Your task to perform on an android device: install app "Move to iOS" Image 0: 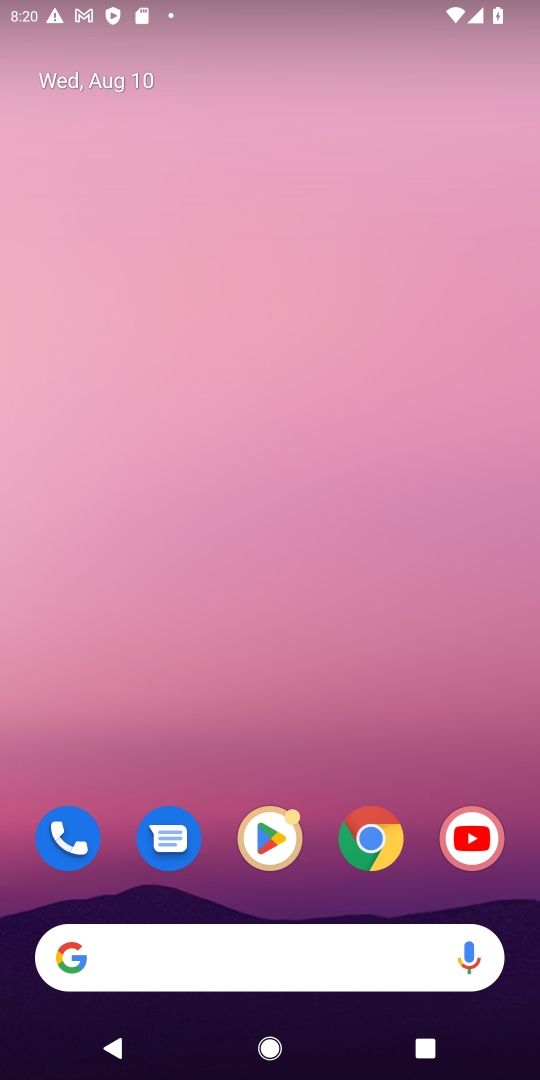
Step 0: click (280, 851)
Your task to perform on an android device: install app "Move to iOS" Image 1: 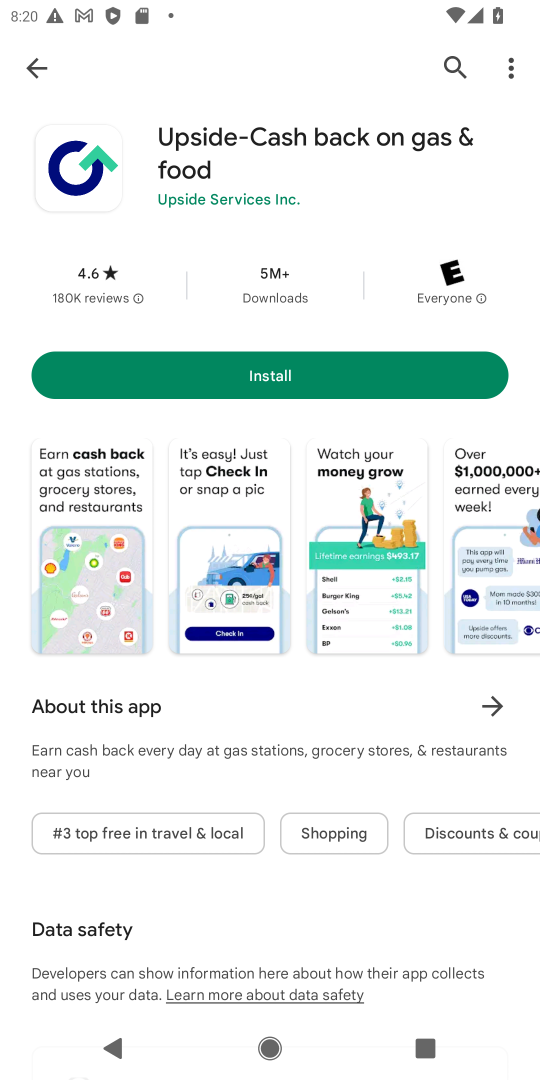
Step 1: click (458, 67)
Your task to perform on an android device: install app "Move to iOS" Image 2: 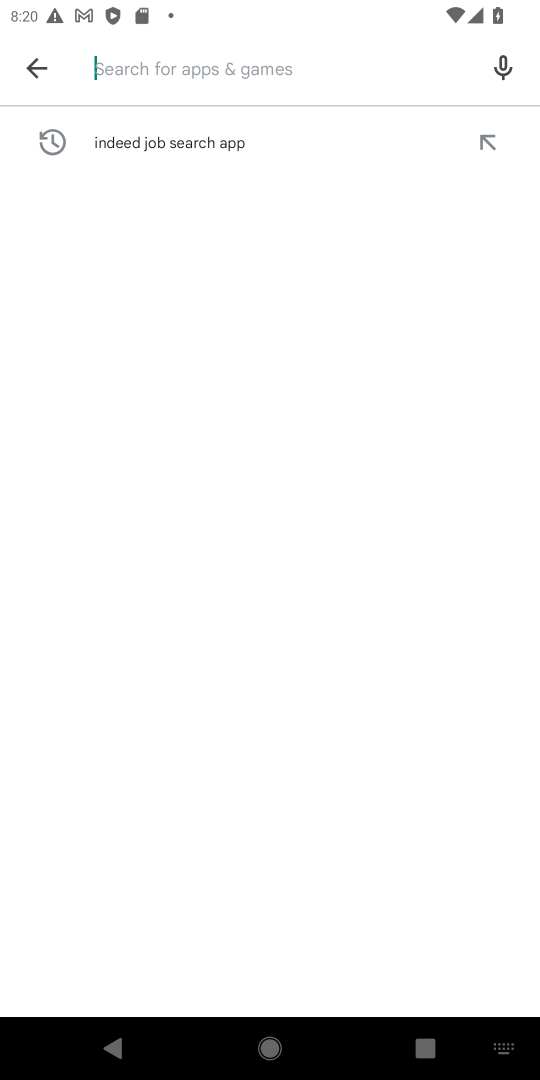
Step 2: type "Move to iOS"
Your task to perform on an android device: install app "Move to iOS" Image 3: 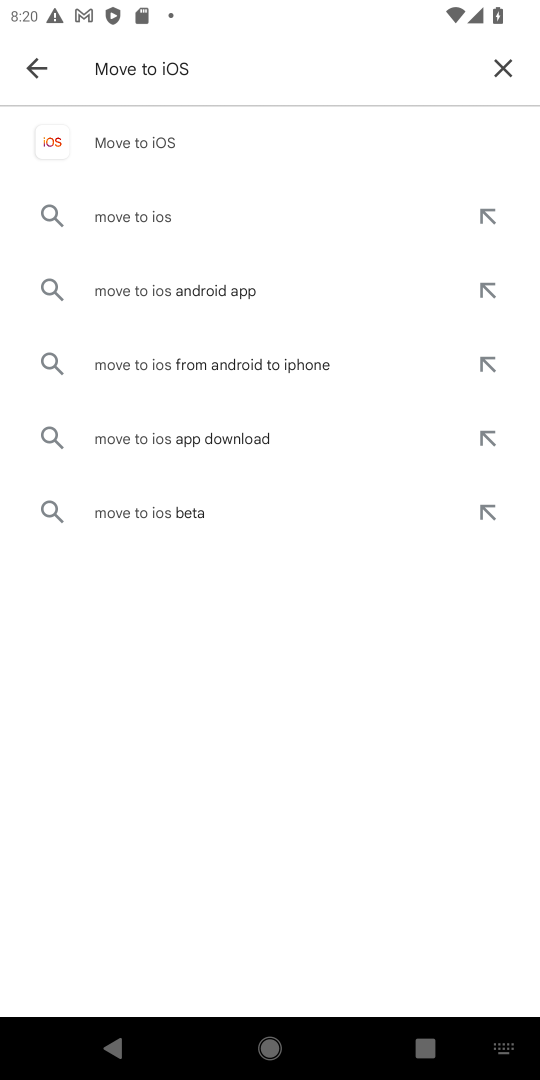
Step 3: click (117, 152)
Your task to perform on an android device: install app "Move to iOS" Image 4: 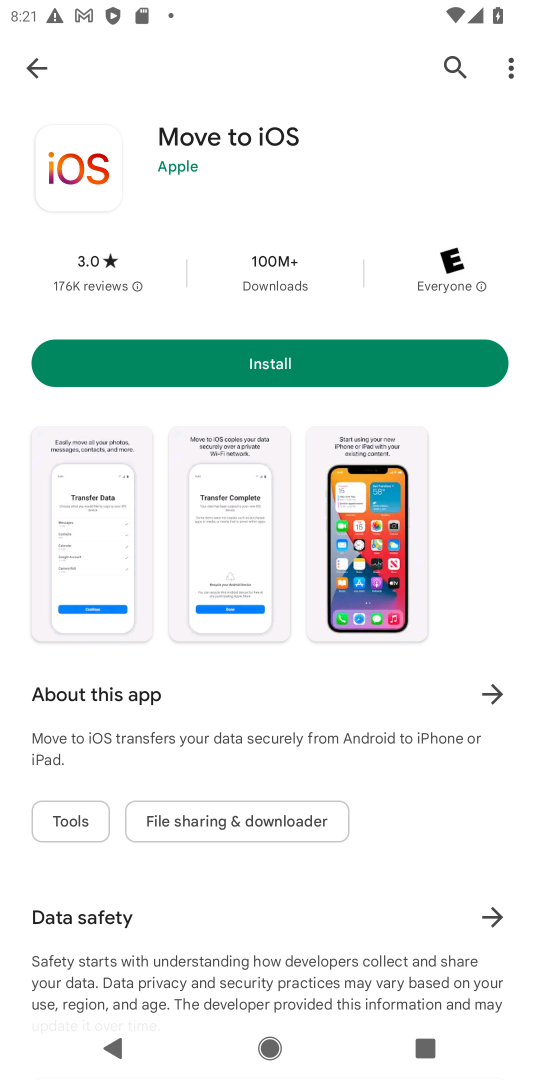
Step 4: click (279, 372)
Your task to perform on an android device: install app "Move to iOS" Image 5: 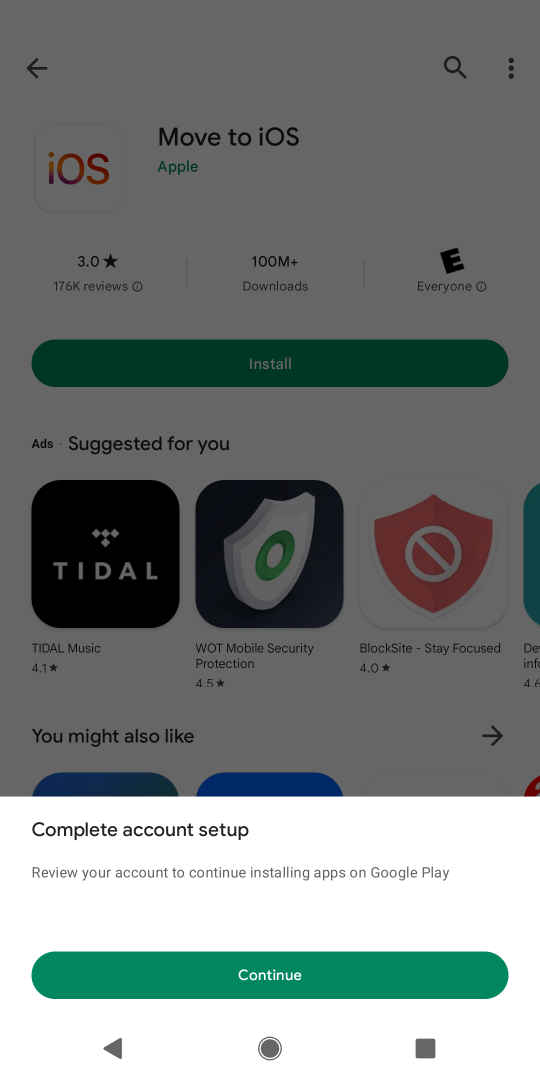
Step 5: click (249, 963)
Your task to perform on an android device: install app "Move to iOS" Image 6: 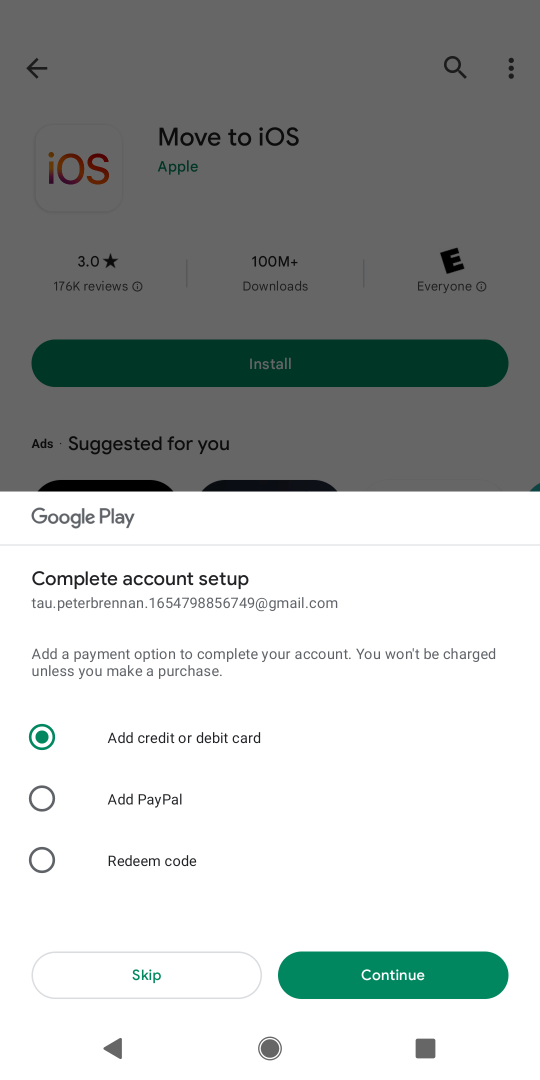
Step 6: click (110, 975)
Your task to perform on an android device: install app "Move to iOS" Image 7: 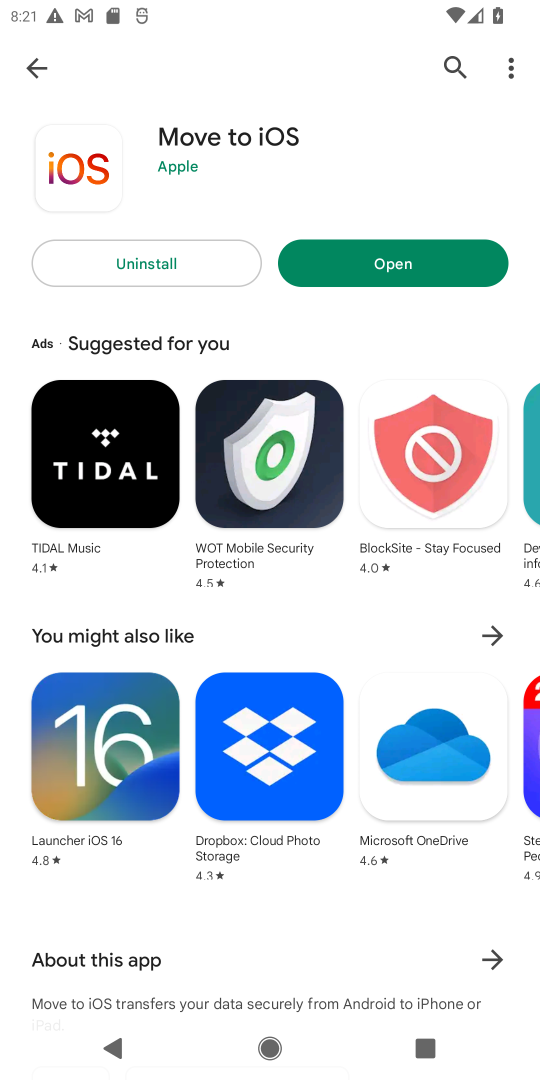
Step 7: click (352, 276)
Your task to perform on an android device: install app "Move to iOS" Image 8: 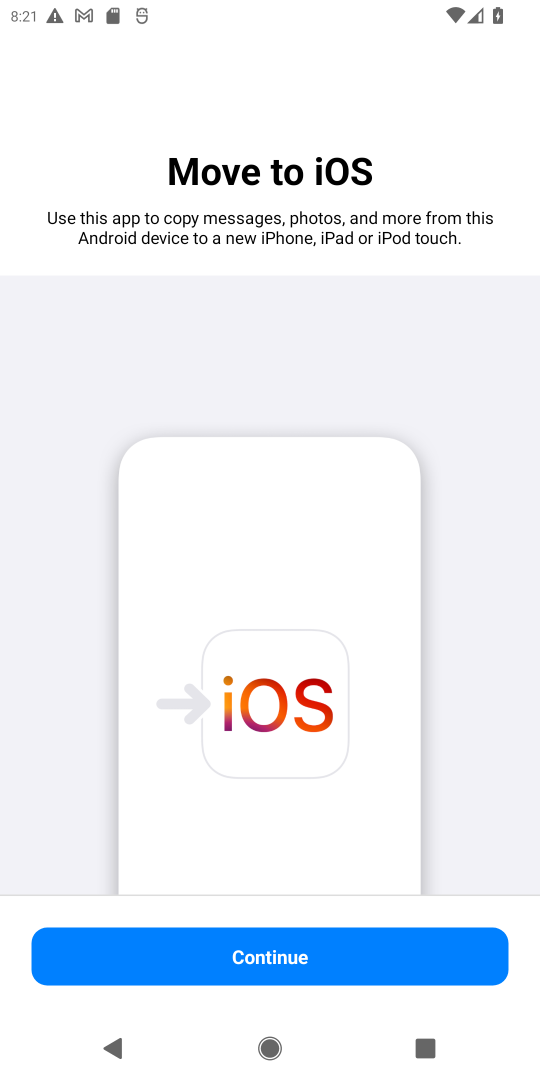
Step 8: click (257, 956)
Your task to perform on an android device: install app "Move to iOS" Image 9: 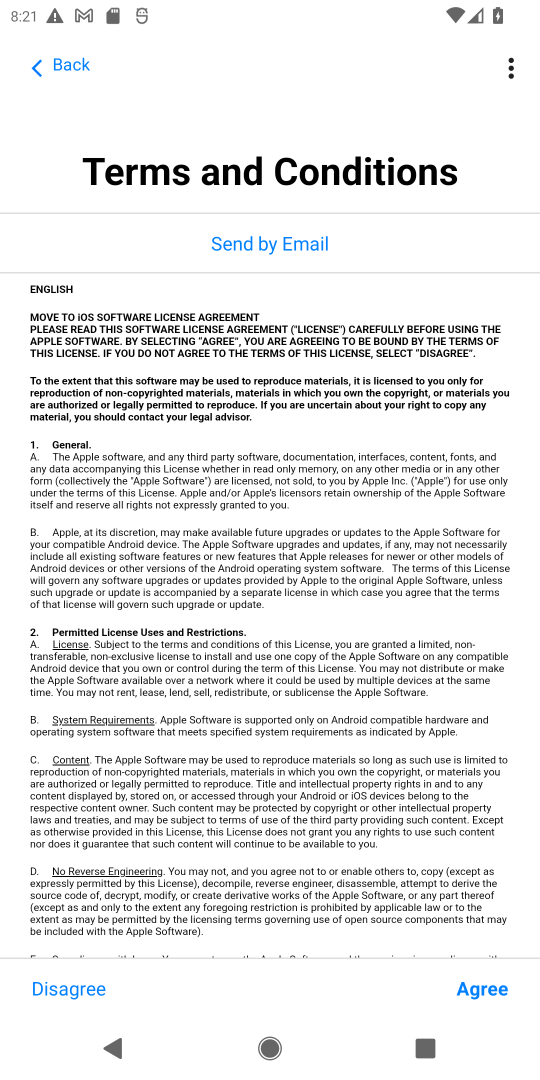
Step 9: click (454, 992)
Your task to perform on an android device: install app "Move to iOS" Image 10: 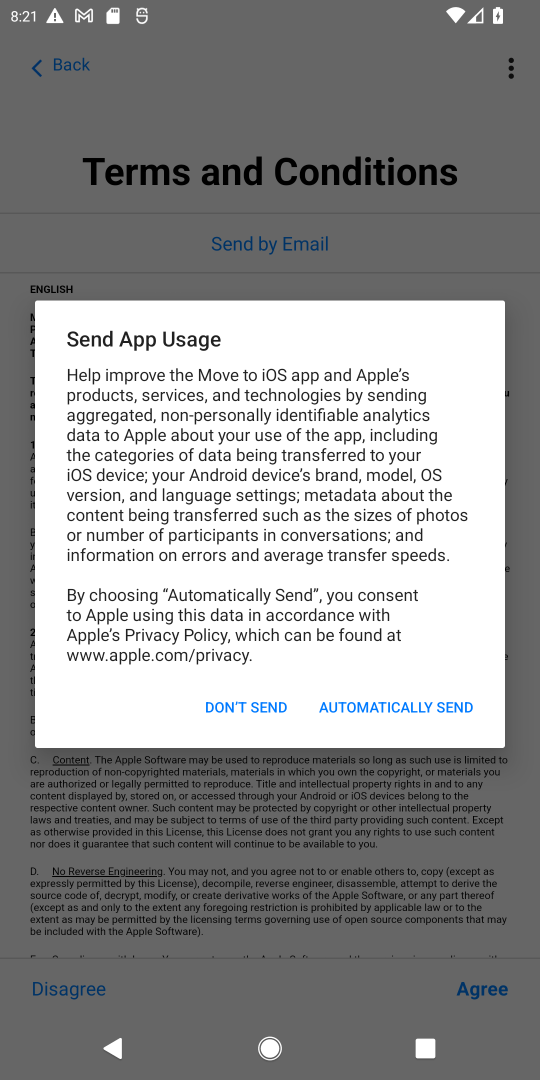
Step 10: click (428, 709)
Your task to perform on an android device: install app "Move to iOS" Image 11: 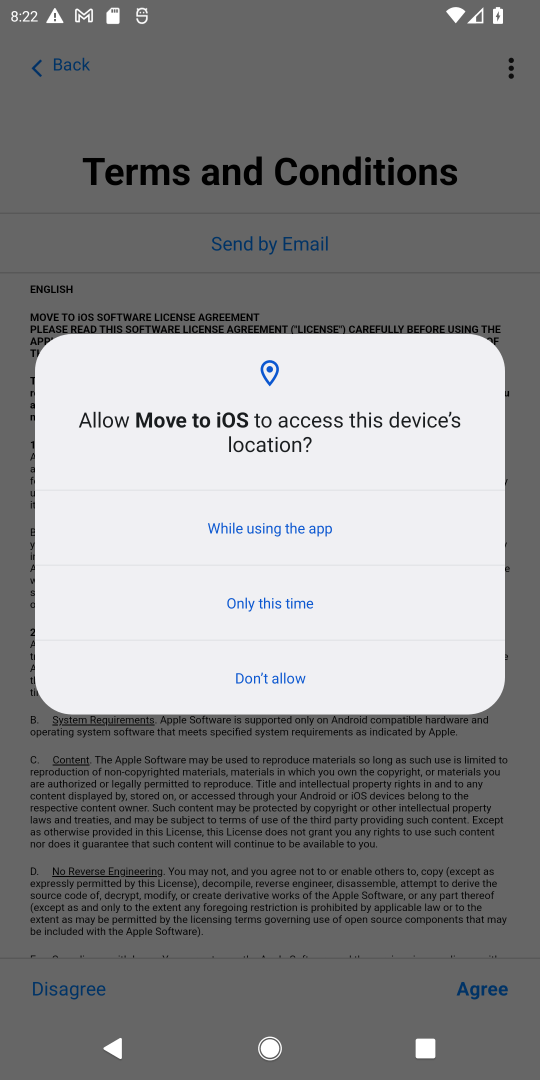
Step 11: click (233, 514)
Your task to perform on an android device: install app "Move to iOS" Image 12: 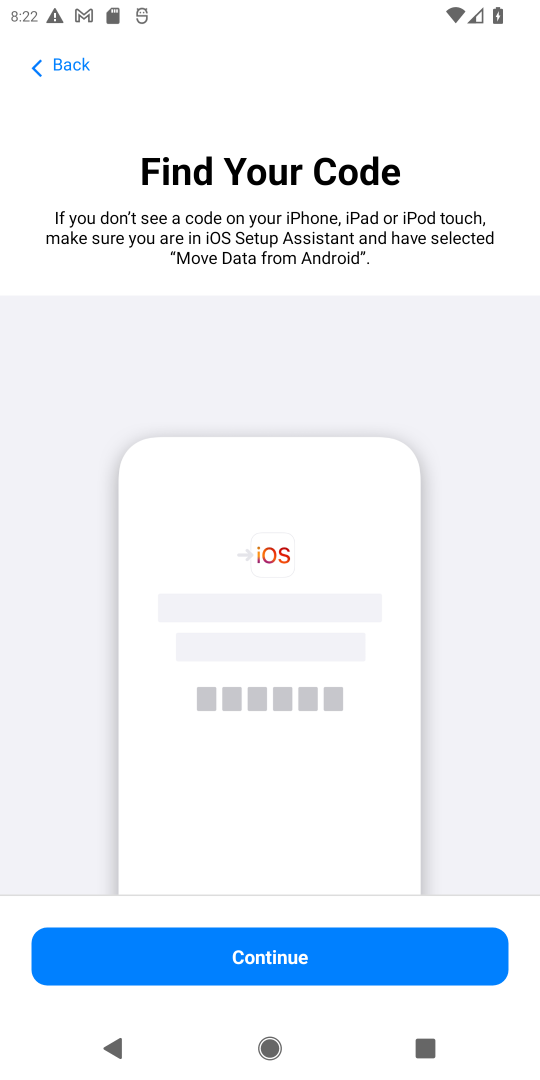
Step 12: click (263, 961)
Your task to perform on an android device: install app "Move to iOS" Image 13: 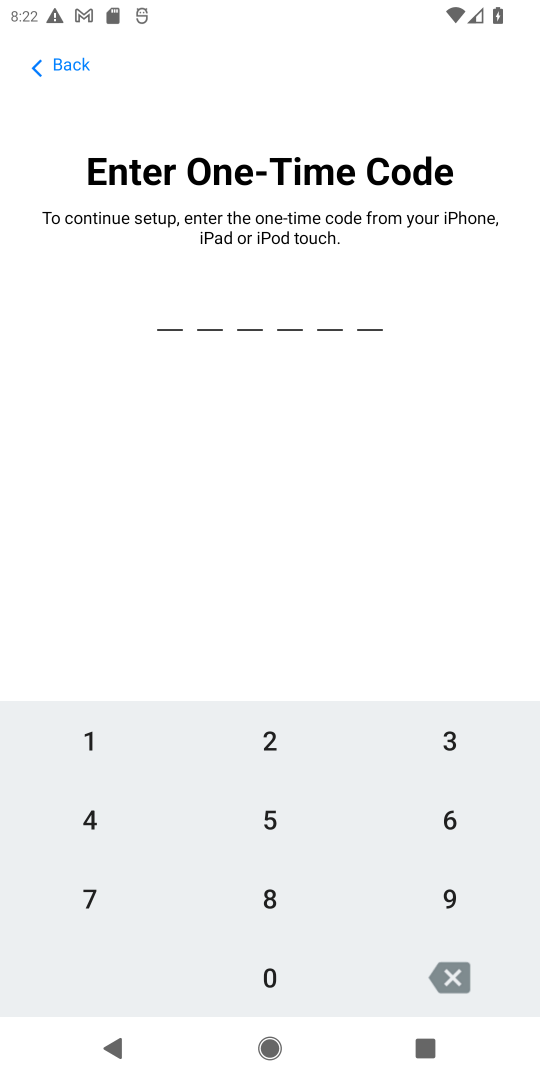
Step 13: task complete